Your task to perform on an android device: toggle location history Image 0: 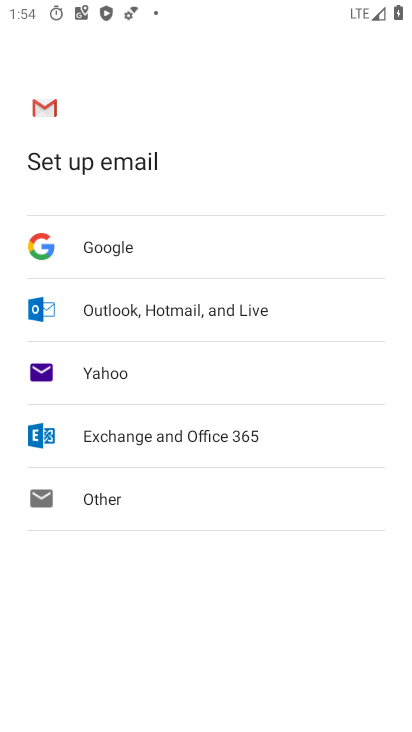
Step 0: press home button
Your task to perform on an android device: toggle location history Image 1: 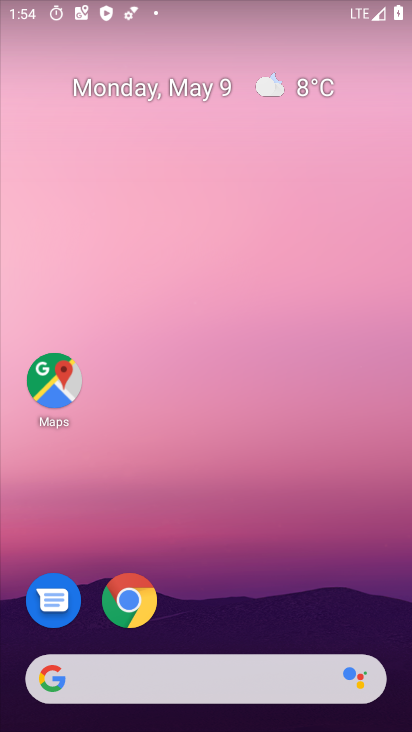
Step 1: drag from (207, 625) to (210, 82)
Your task to perform on an android device: toggle location history Image 2: 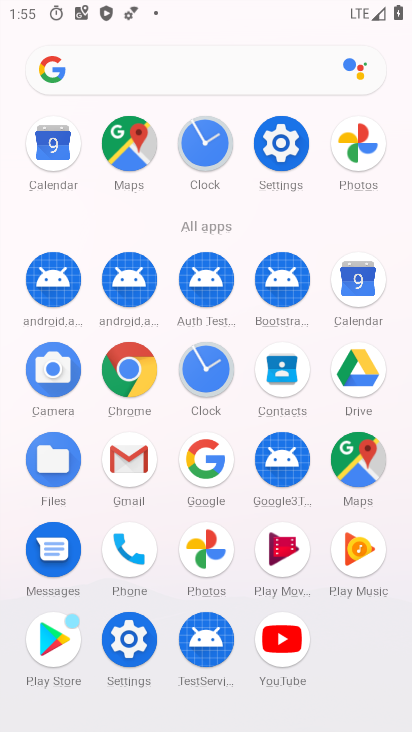
Step 2: click (274, 136)
Your task to perform on an android device: toggle location history Image 3: 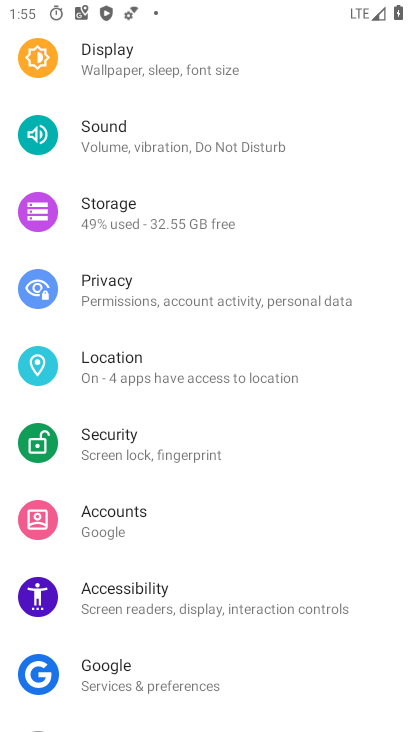
Step 3: click (150, 360)
Your task to perform on an android device: toggle location history Image 4: 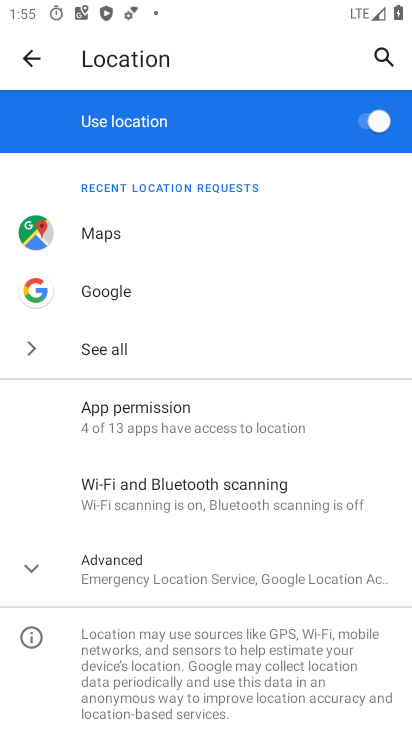
Step 4: click (39, 566)
Your task to perform on an android device: toggle location history Image 5: 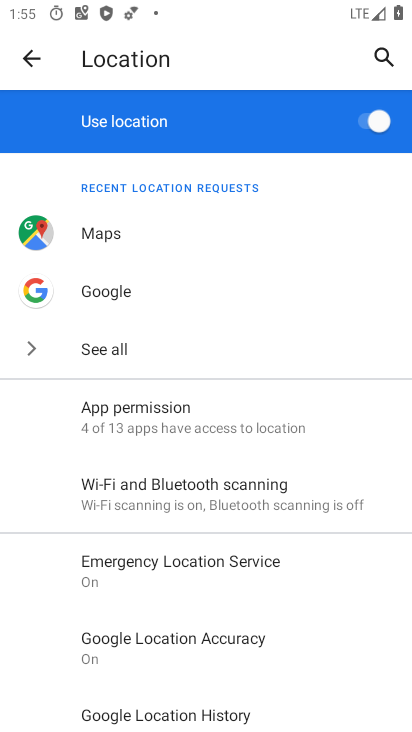
Step 5: click (240, 710)
Your task to perform on an android device: toggle location history Image 6: 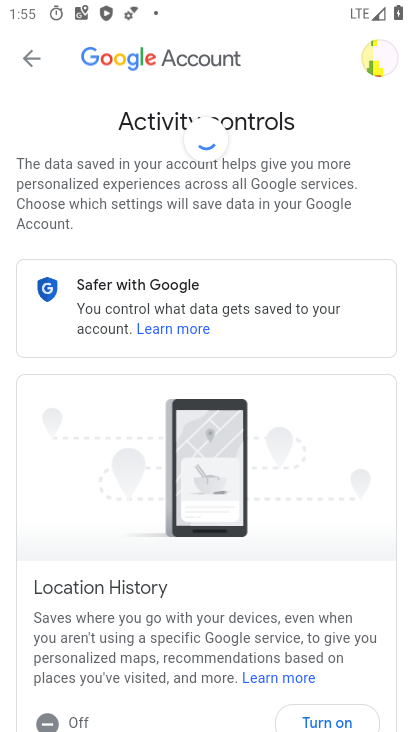
Step 6: drag from (210, 617) to (205, 119)
Your task to perform on an android device: toggle location history Image 7: 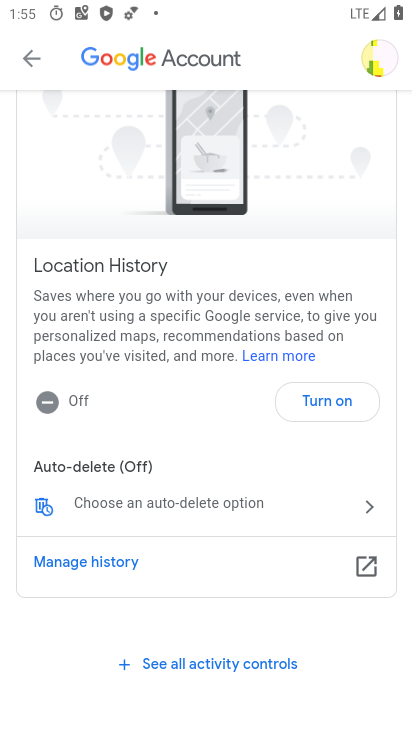
Step 7: click (295, 408)
Your task to perform on an android device: toggle location history Image 8: 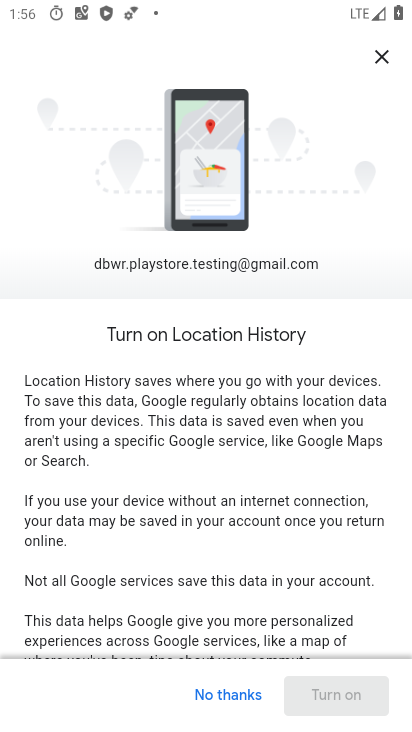
Step 8: drag from (241, 589) to (245, 113)
Your task to perform on an android device: toggle location history Image 9: 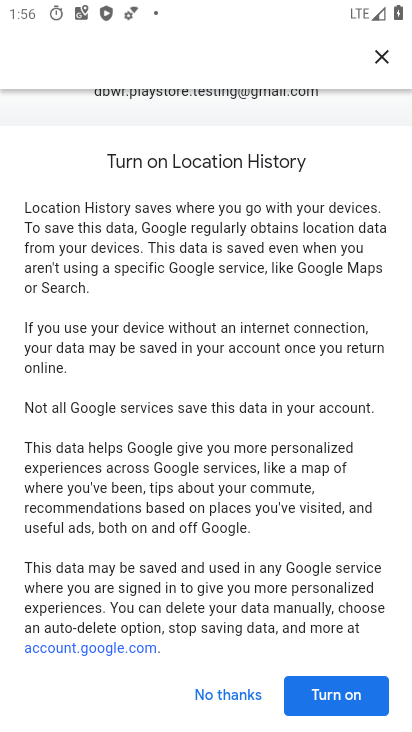
Step 9: click (330, 705)
Your task to perform on an android device: toggle location history Image 10: 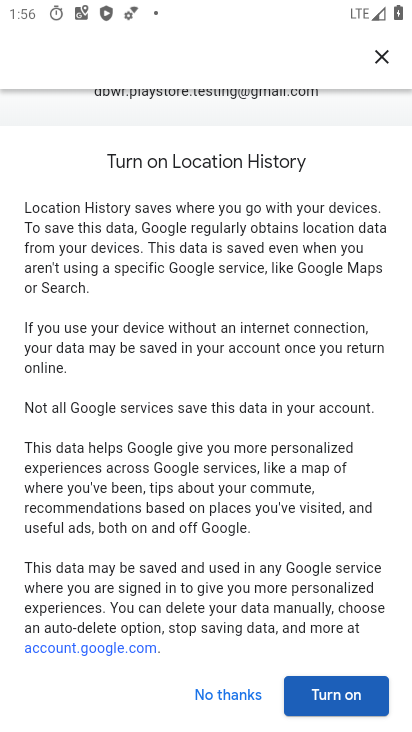
Step 10: click (322, 700)
Your task to perform on an android device: toggle location history Image 11: 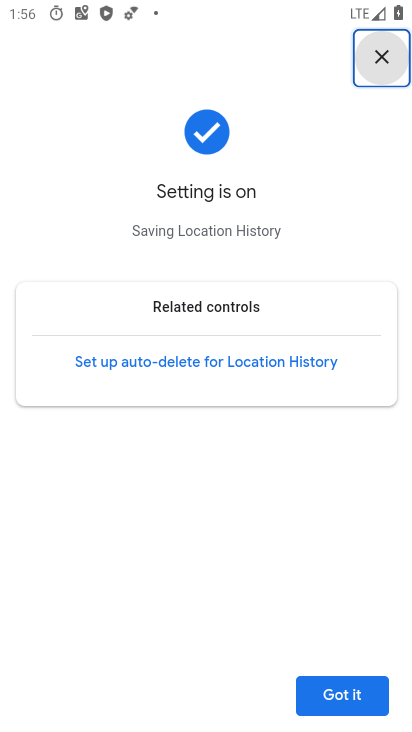
Step 11: click (340, 690)
Your task to perform on an android device: toggle location history Image 12: 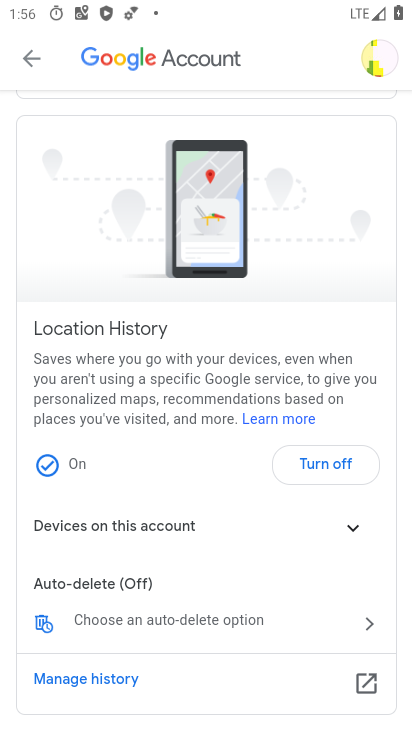
Step 12: task complete